Your task to perform on an android device: Open calendar and show me the third week of next month Image 0: 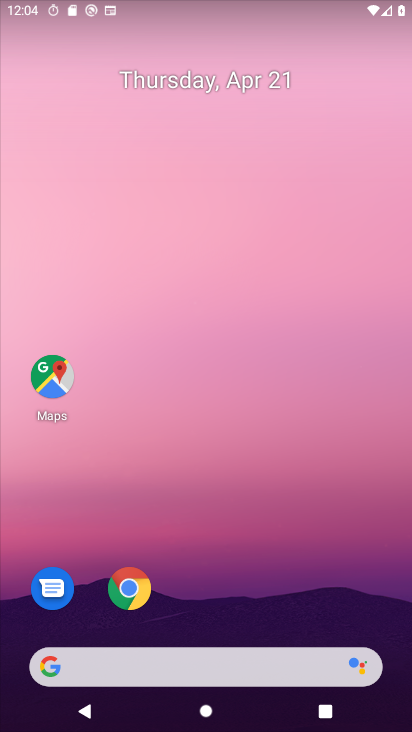
Step 0: drag from (215, 627) to (264, 31)
Your task to perform on an android device: Open calendar and show me the third week of next month Image 1: 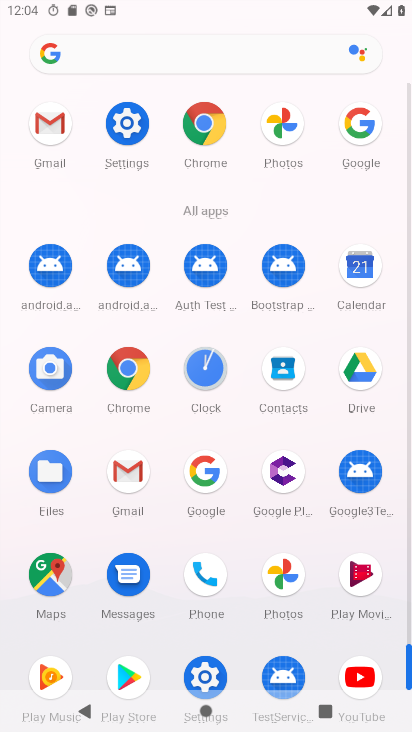
Step 1: click (360, 264)
Your task to perform on an android device: Open calendar and show me the third week of next month Image 2: 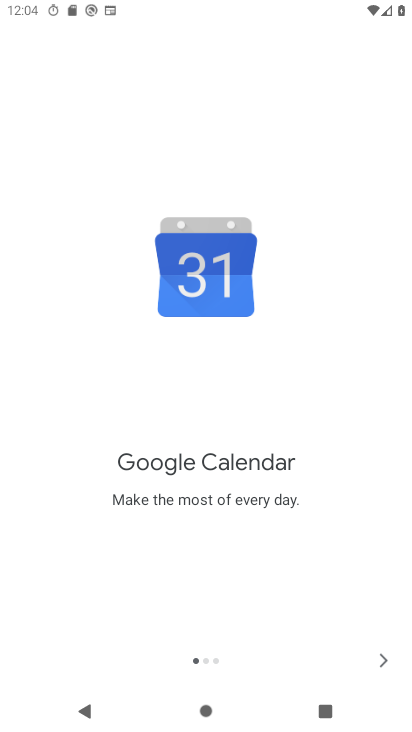
Step 2: click (382, 656)
Your task to perform on an android device: Open calendar and show me the third week of next month Image 3: 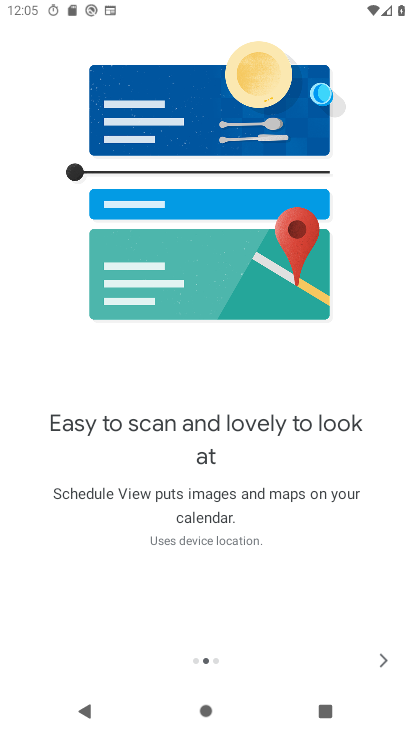
Step 3: click (382, 656)
Your task to perform on an android device: Open calendar and show me the third week of next month Image 4: 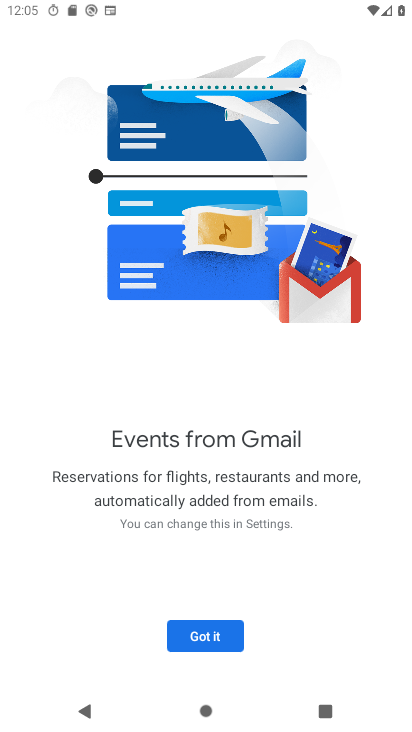
Step 4: click (209, 634)
Your task to perform on an android device: Open calendar and show me the third week of next month Image 5: 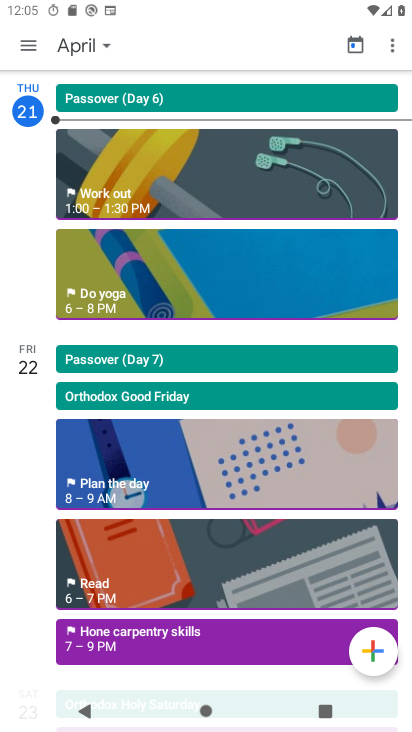
Step 5: click (27, 42)
Your task to perform on an android device: Open calendar and show me the third week of next month Image 6: 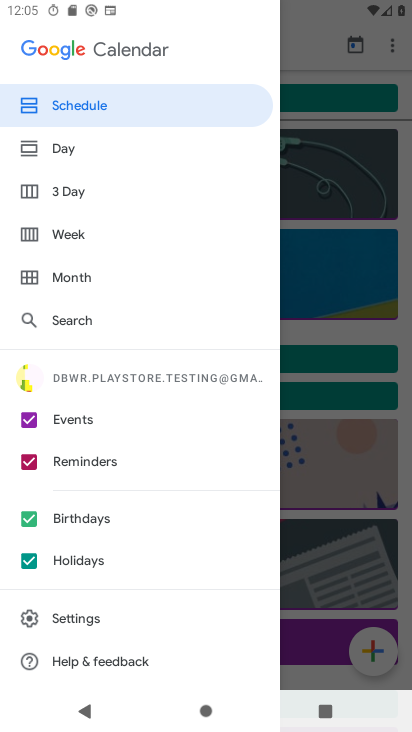
Step 6: click (62, 235)
Your task to perform on an android device: Open calendar and show me the third week of next month Image 7: 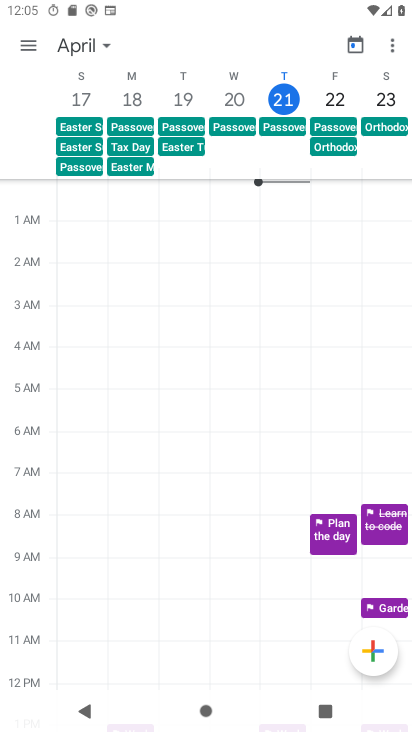
Step 7: drag from (383, 92) to (7, 92)
Your task to perform on an android device: Open calendar and show me the third week of next month Image 8: 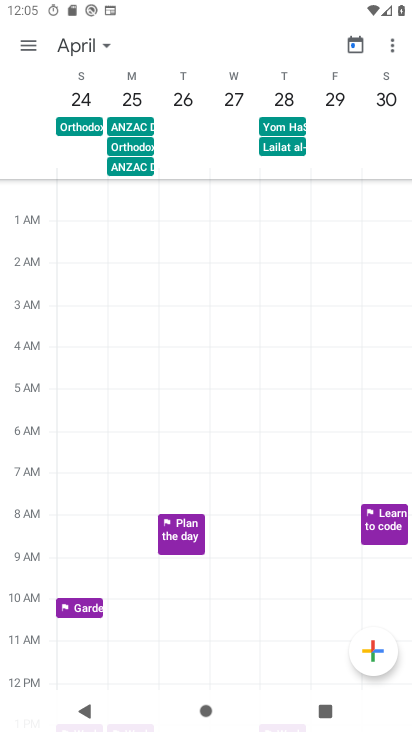
Step 8: drag from (388, 98) to (23, 91)
Your task to perform on an android device: Open calendar and show me the third week of next month Image 9: 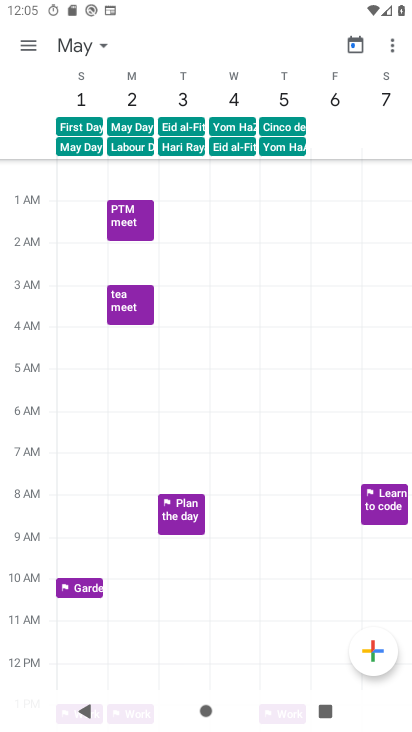
Step 9: drag from (387, 88) to (51, 86)
Your task to perform on an android device: Open calendar and show me the third week of next month Image 10: 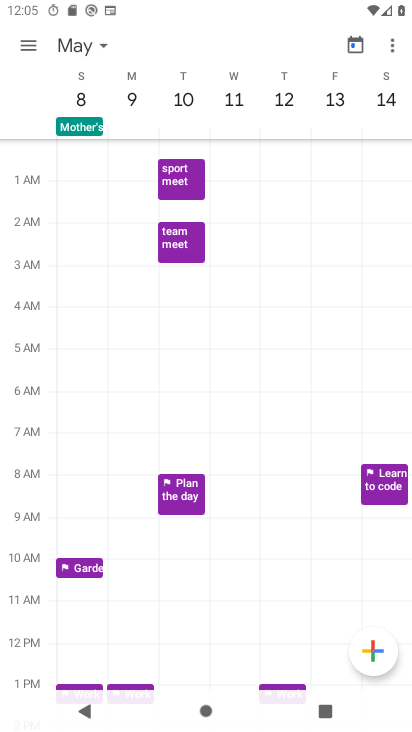
Step 10: drag from (367, 99) to (74, 93)
Your task to perform on an android device: Open calendar and show me the third week of next month Image 11: 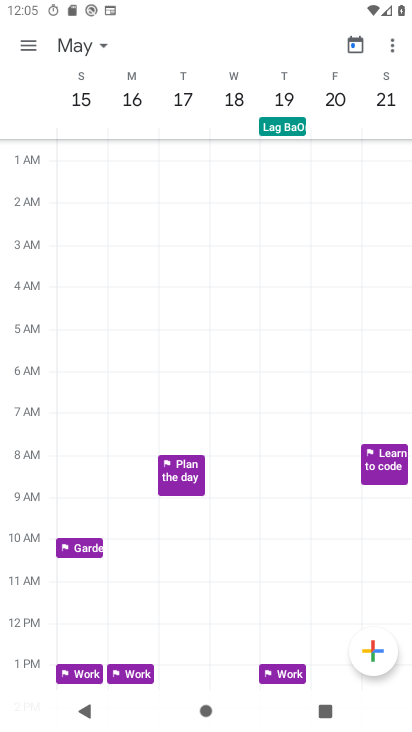
Step 11: click (77, 98)
Your task to perform on an android device: Open calendar and show me the third week of next month Image 12: 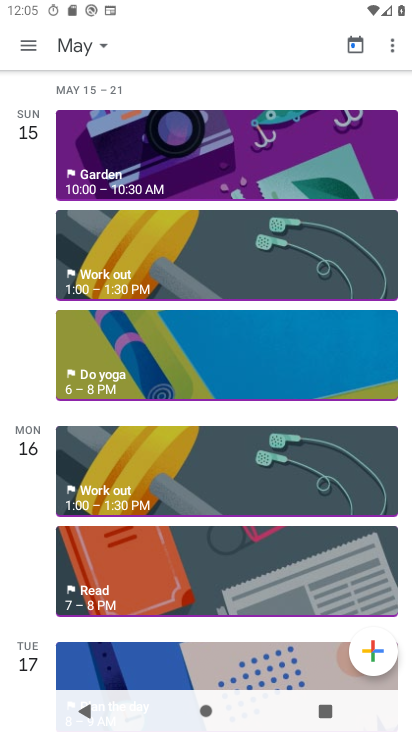
Step 12: task complete